Your task to perform on an android device: What's the weather today? Image 0: 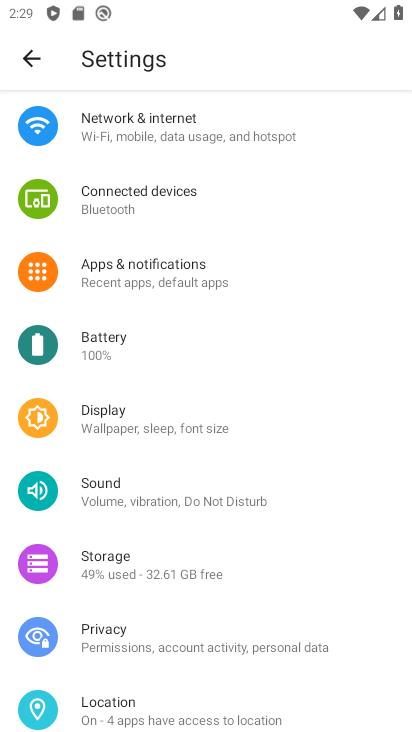
Step 0: press home button
Your task to perform on an android device: What's the weather today? Image 1: 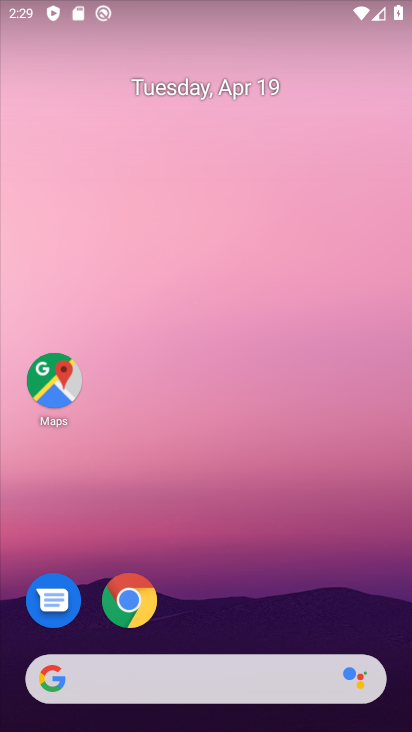
Step 1: drag from (9, 190) to (397, 217)
Your task to perform on an android device: What's the weather today? Image 2: 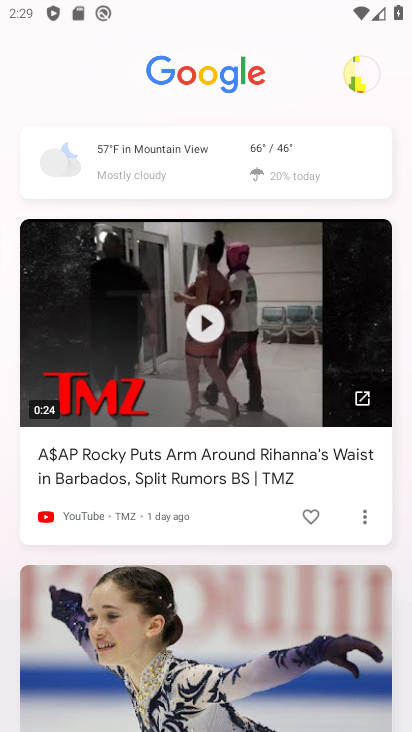
Step 2: click (266, 148)
Your task to perform on an android device: What's the weather today? Image 3: 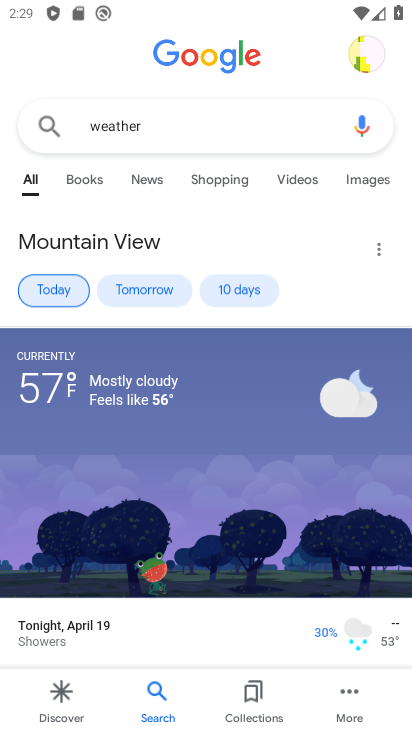
Step 3: task complete